Your task to perform on an android device: turn off location history Image 0: 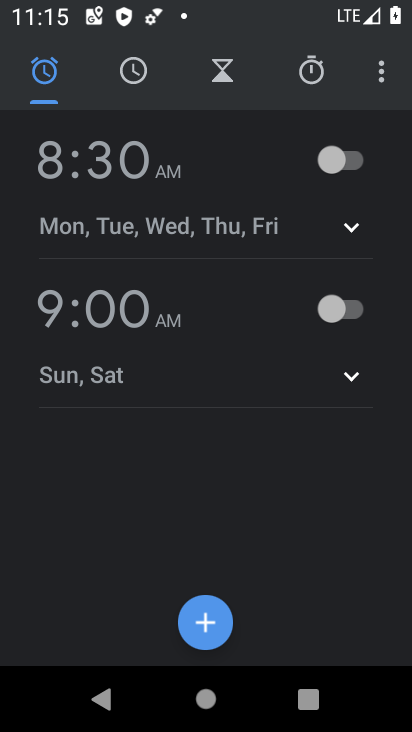
Step 0: press home button
Your task to perform on an android device: turn off location history Image 1: 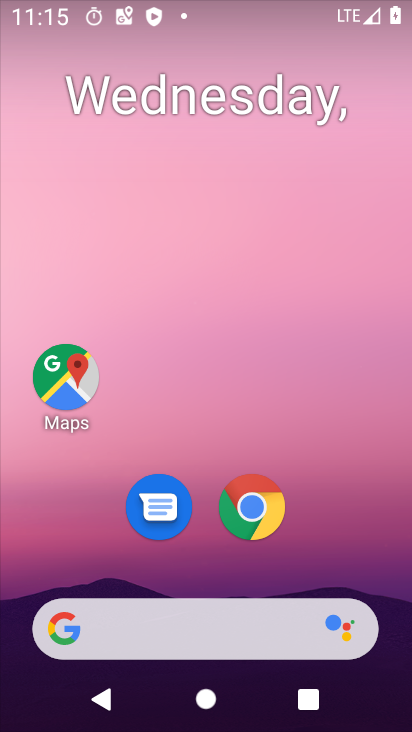
Step 1: drag from (234, 724) to (199, 115)
Your task to perform on an android device: turn off location history Image 2: 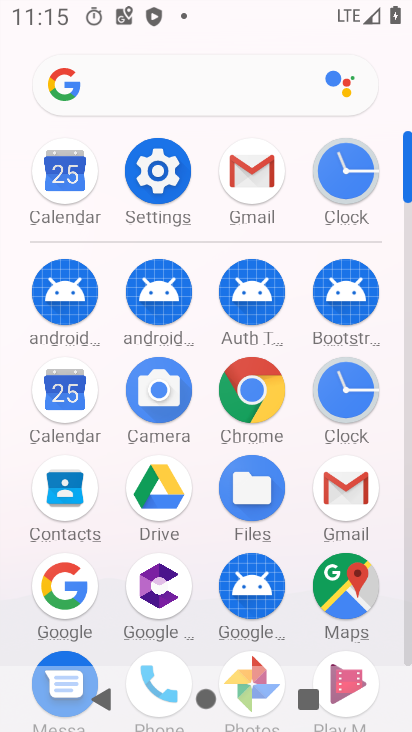
Step 2: click (159, 172)
Your task to perform on an android device: turn off location history Image 3: 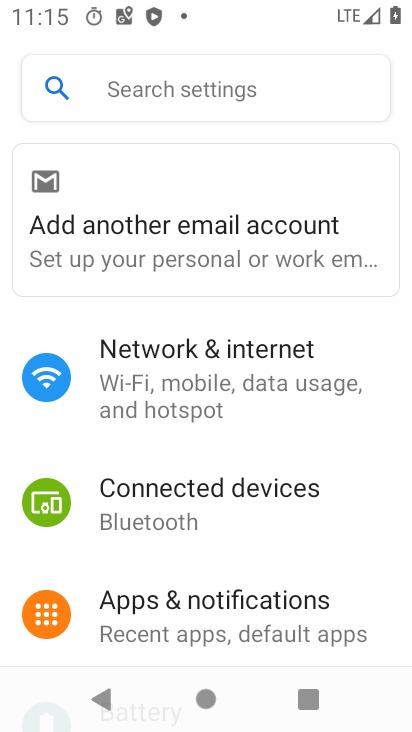
Step 3: drag from (153, 631) to (159, 282)
Your task to perform on an android device: turn off location history Image 4: 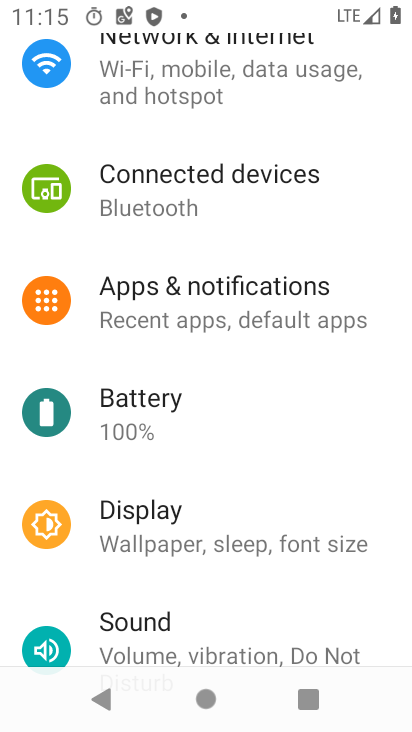
Step 4: drag from (139, 576) to (133, 213)
Your task to perform on an android device: turn off location history Image 5: 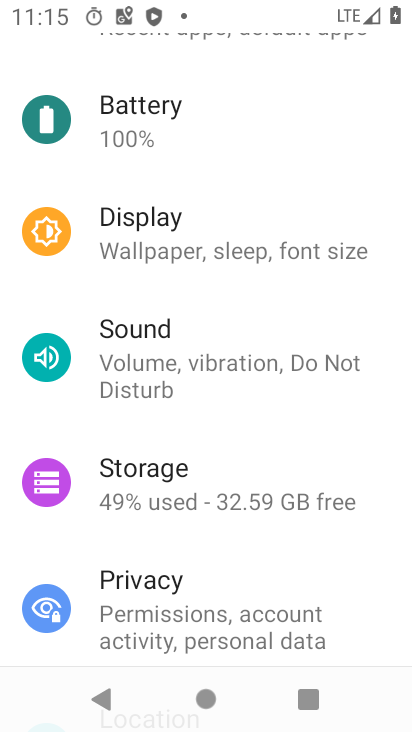
Step 5: drag from (150, 575) to (102, 212)
Your task to perform on an android device: turn off location history Image 6: 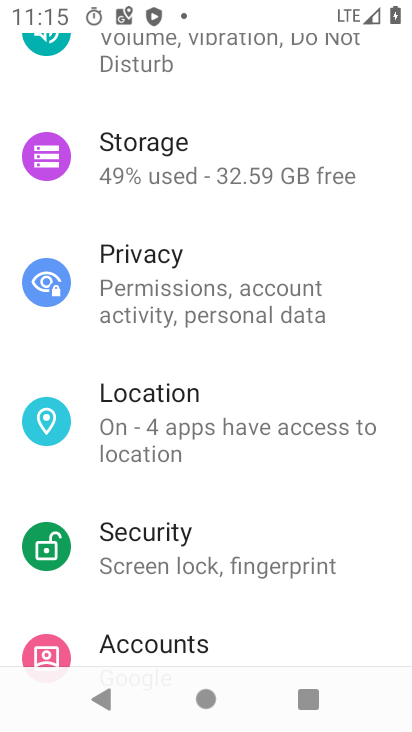
Step 6: click (182, 418)
Your task to perform on an android device: turn off location history Image 7: 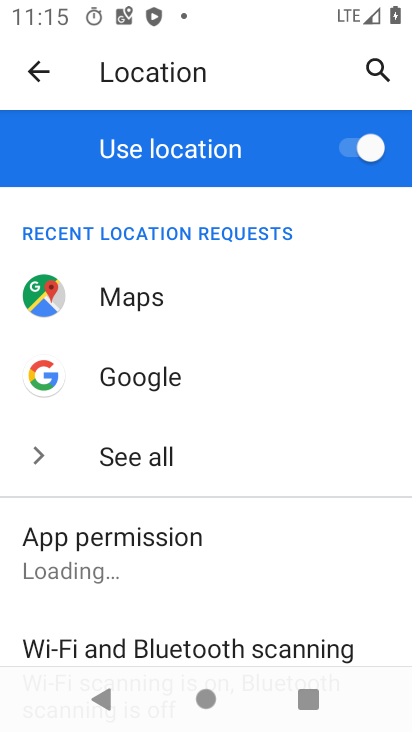
Step 7: drag from (152, 580) to (121, 221)
Your task to perform on an android device: turn off location history Image 8: 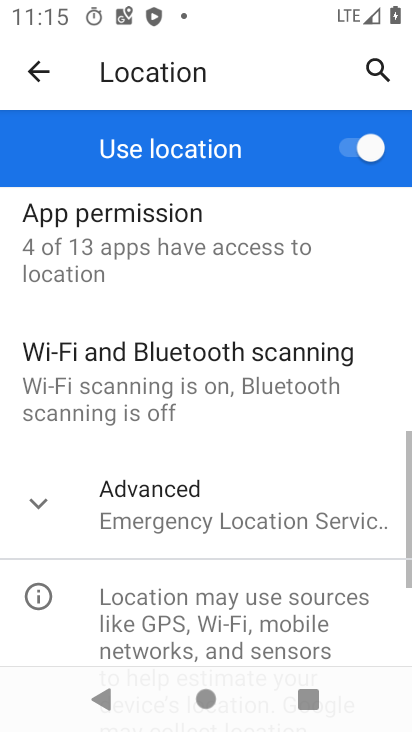
Step 8: click (149, 479)
Your task to perform on an android device: turn off location history Image 9: 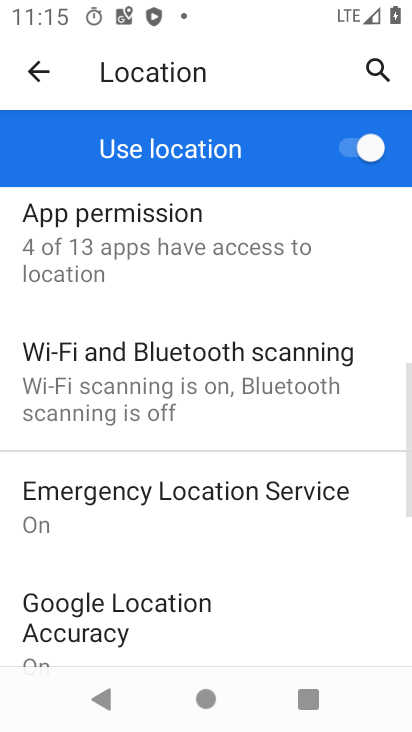
Step 9: drag from (145, 623) to (124, 320)
Your task to perform on an android device: turn off location history Image 10: 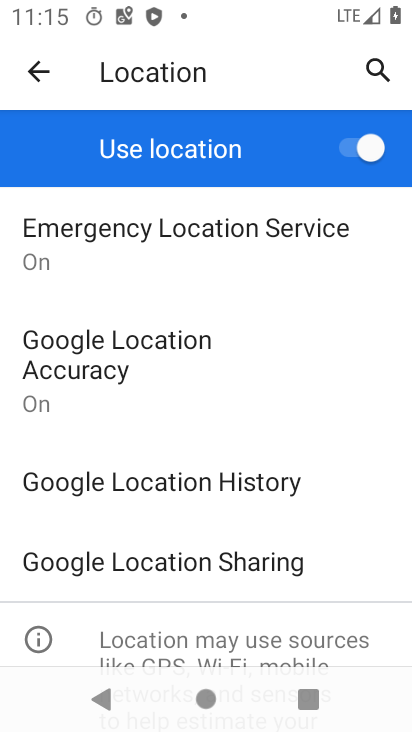
Step 10: click (148, 482)
Your task to perform on an android device: turn off location history Image 11: 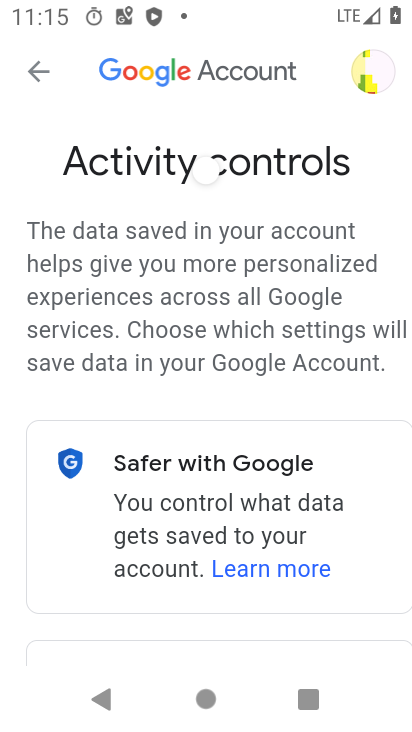
Step 11: task complete